Your task to perform on an android device: toggle airplane mode Image 0: 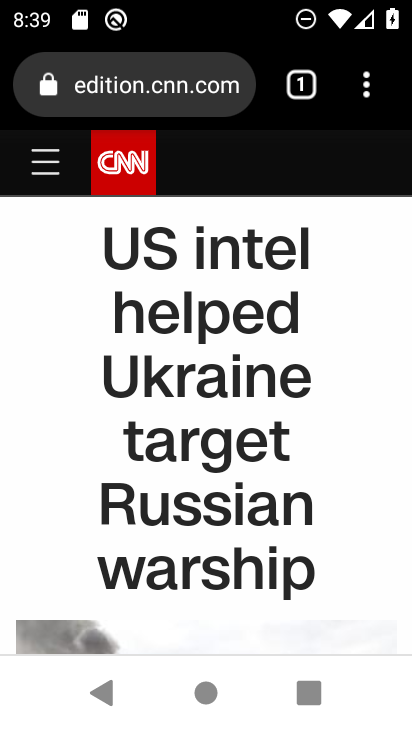
Step 0: drag from (156, 11) to (236, 556)
Your task to perform on an android device: toggle airplane mode Image 1: 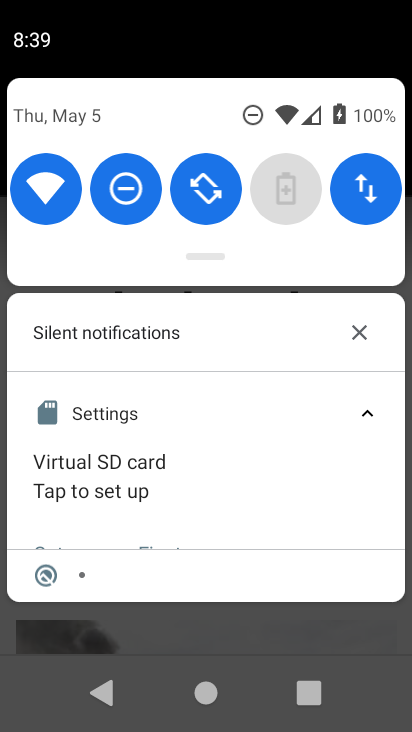
Step 1: task complete